Your task to perform on an android device: Is it going to rain today? Image 0: 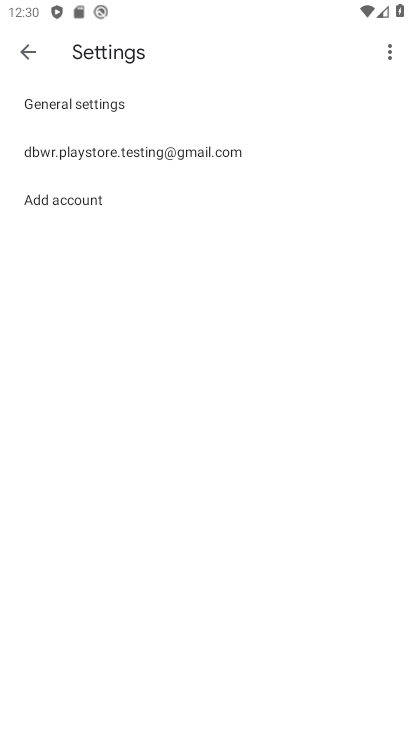
Step 0: press home button
Your task to perform on an android device: Is it going to rain today? Image 1: 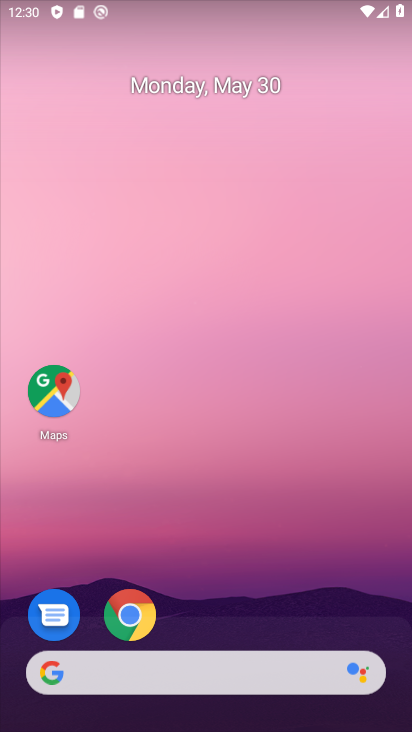
Step 1: drag from (234, 629) to (168, 99)
Your task to perform on an android device: Is it going to rain today? Image 2: 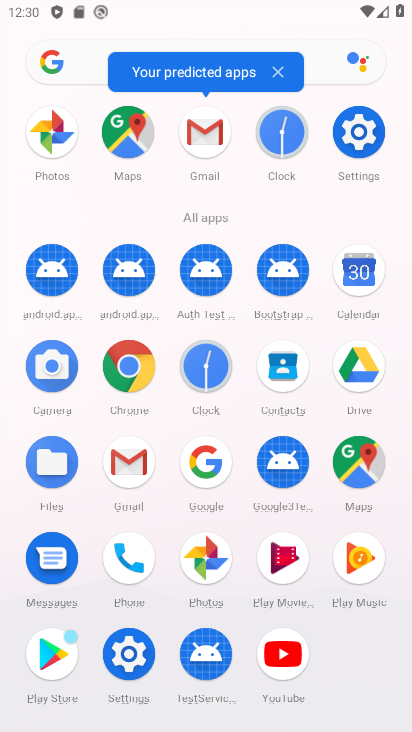
Step 2: click (133, 373)
Your task to perform on an android device: Is it going to rain today? Image 3: 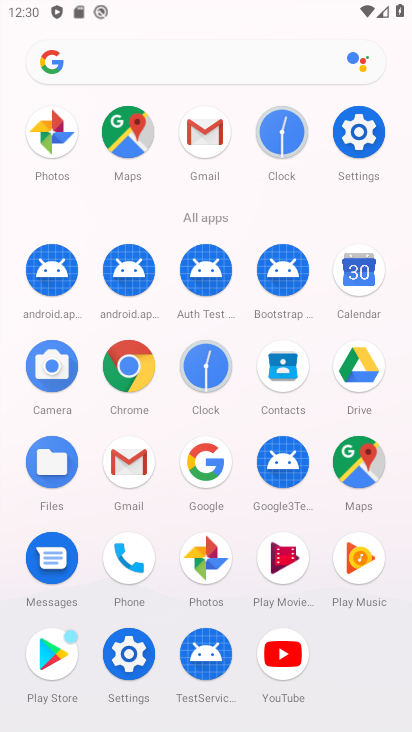
Step 3: click (134, 386)
Your task to perform on an android device: Is it going to rain today? Image 4: 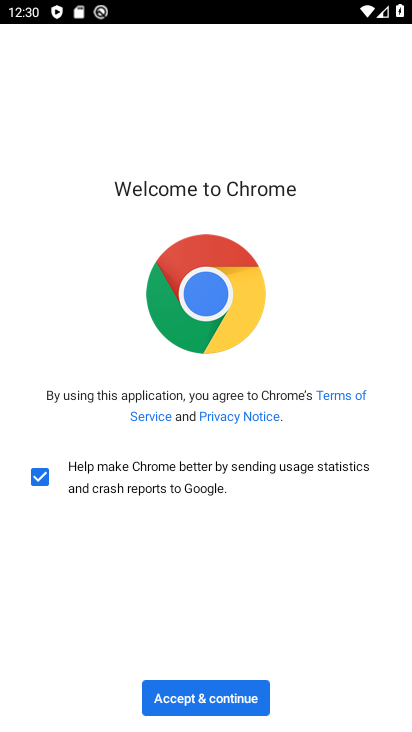
Step 4: click (197, 698)
Your task to perform on an android device: Is it going to rain today? Image 5: 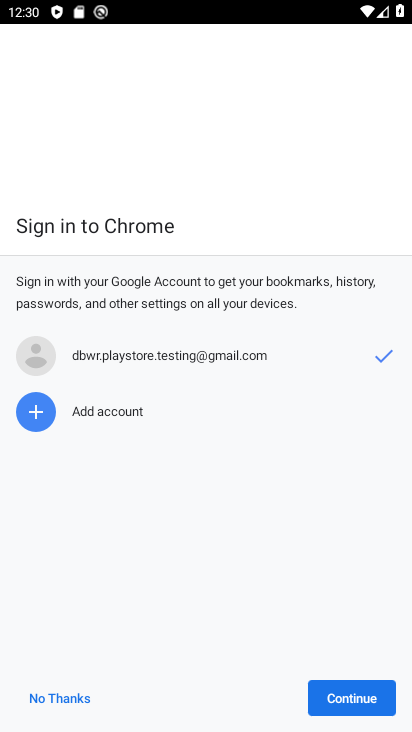
Step 5: click (333, 708)
Your task to perform on an android device: Is it going to rain today? Image 6: 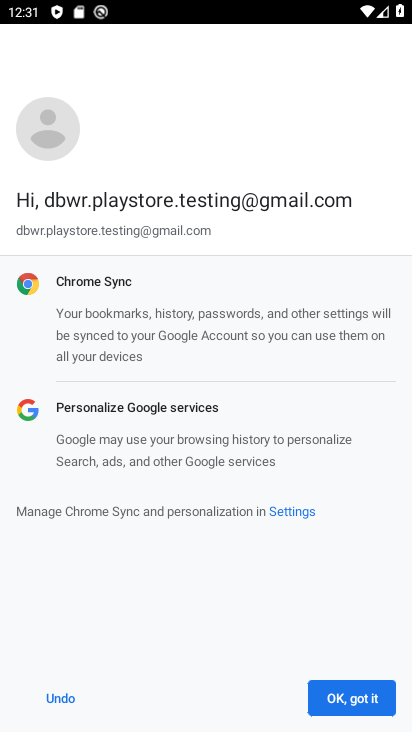
Step 6: click (338, 706)
Your task to perform on an android device: Is it going to rain today? Image 7: 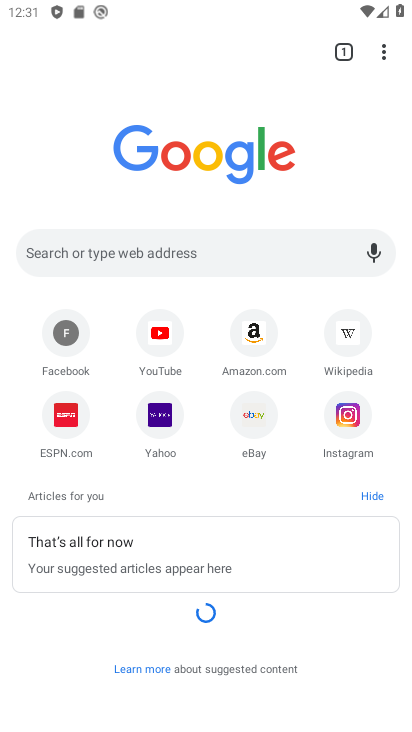
Step 7: click (234, 241)
Your task to perform on an android device: Is it going to rain today? Image 8: 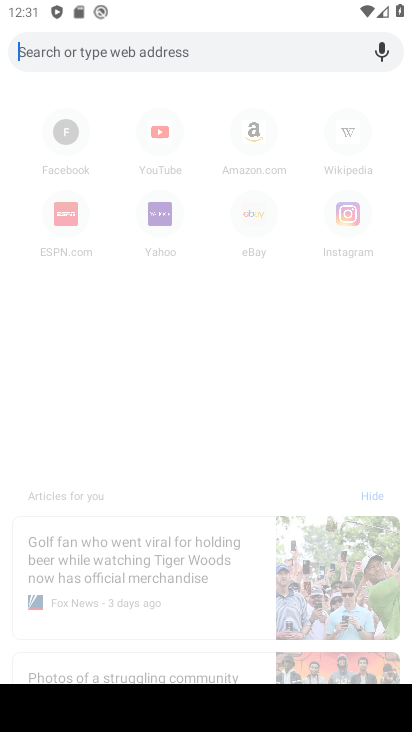
Step 8: click (122, 43)
Your task to perform on an android device: Is it going to rain today? Image 9: 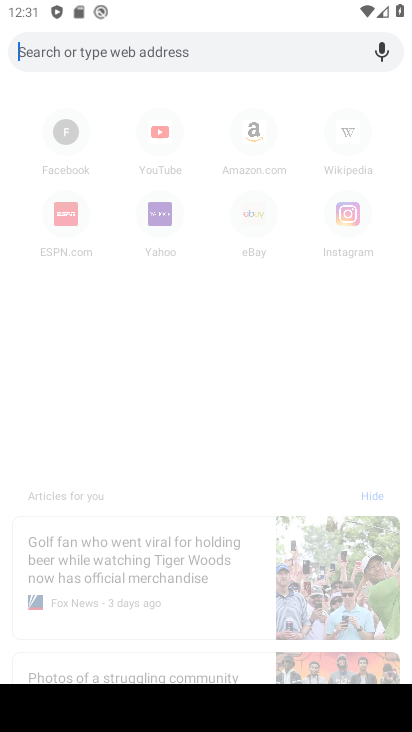
Step 9: type "Is it going to rain today?"
Your task to perform on an android device: Is it going to rain today? Image 10: 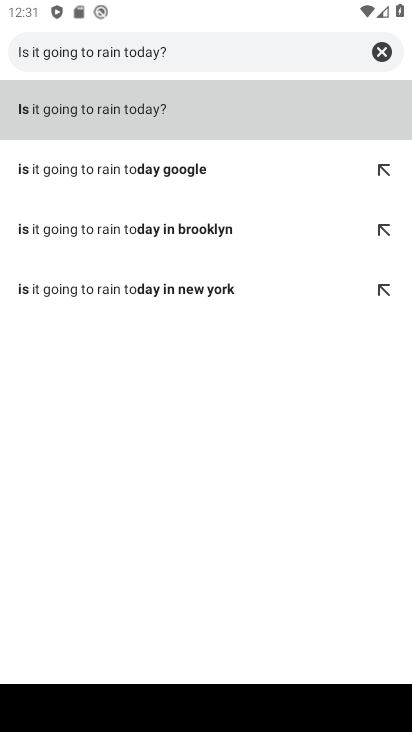
Step 10: click (126, 101)
Your task to perform on an android device: Is it going to rain today? Image 11: 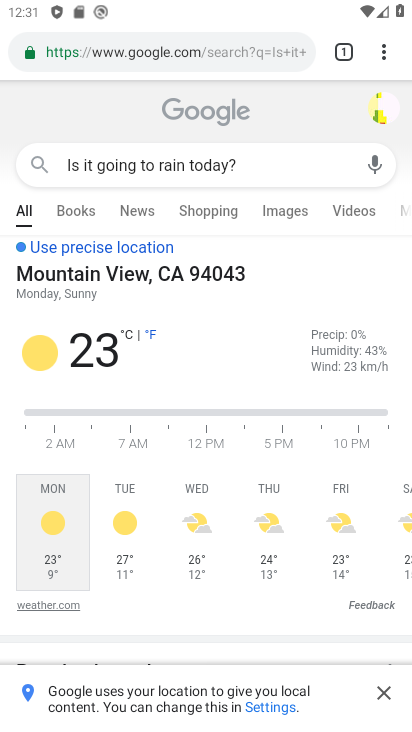
Step 11: task complete